Your task to perform on an android device: Search for runner rugs on Crate & Barrel Image 0: 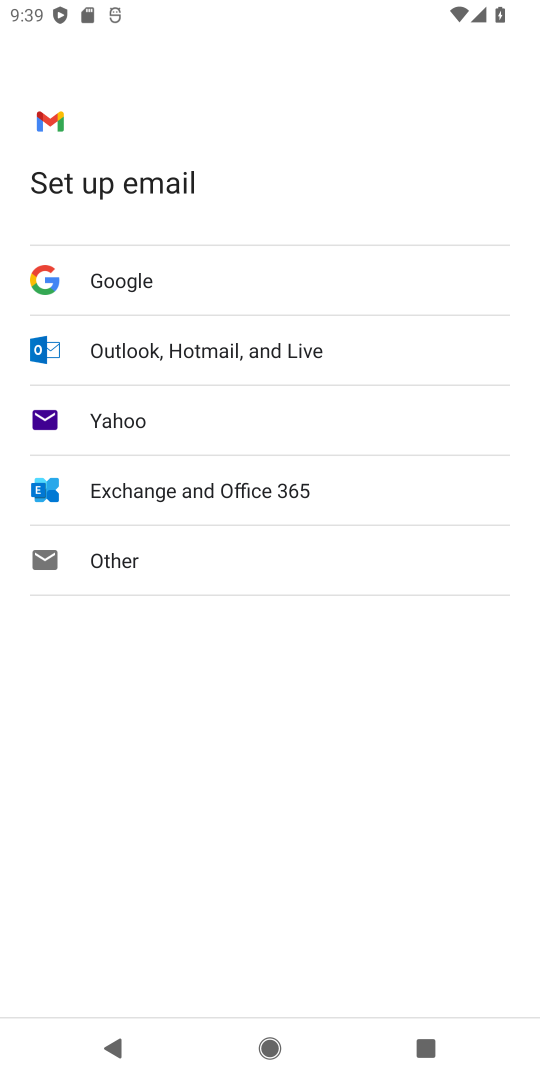
Step 0: press home button
Your task to perform on an android device: Search for runner rugs on Crate & Barrel Image 1: 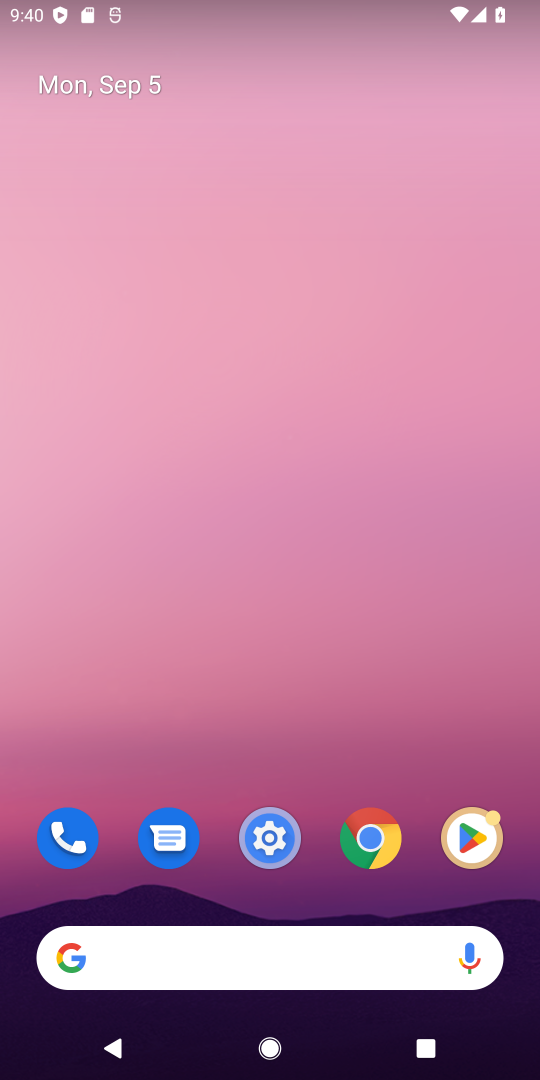
Step 1: click (257, 942)
Your task to perform on an android device: Search for runner rugs on Crate & Barrel Image 2: 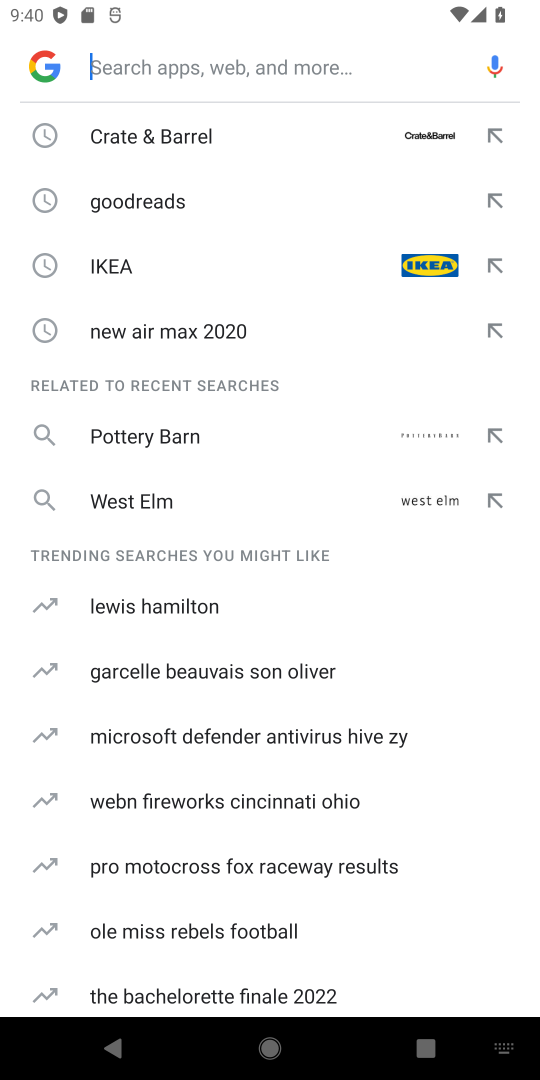
Step 2: click (220, 139)
Your task to perform on an android device: Search for runner rugs on Crate & Barrel Image 3: 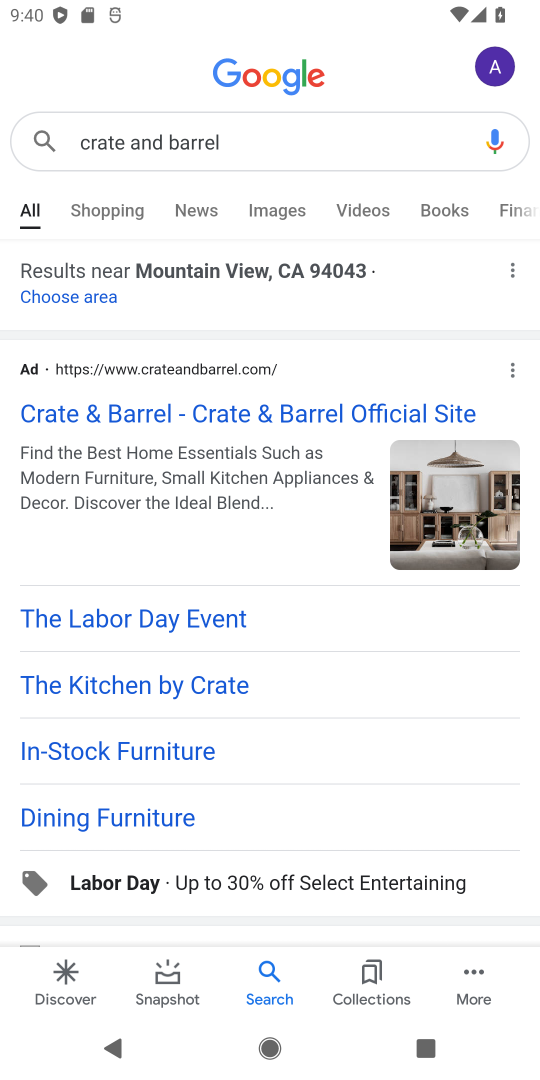
Step 3: drag from (247, 737) to (258, 257)
Your task to perform on an android device: Search for runner rugs on Crate & Barrel Image 4: 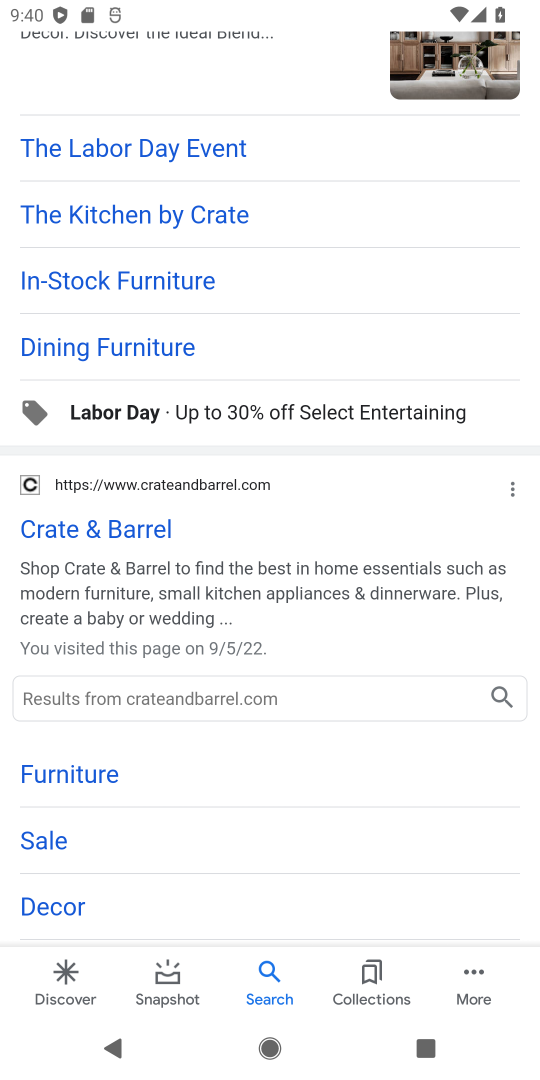
Step 4: click (154, 529)
Your task to perform on an android device: Search for runner rugs on Crate & Barrel Image 5: 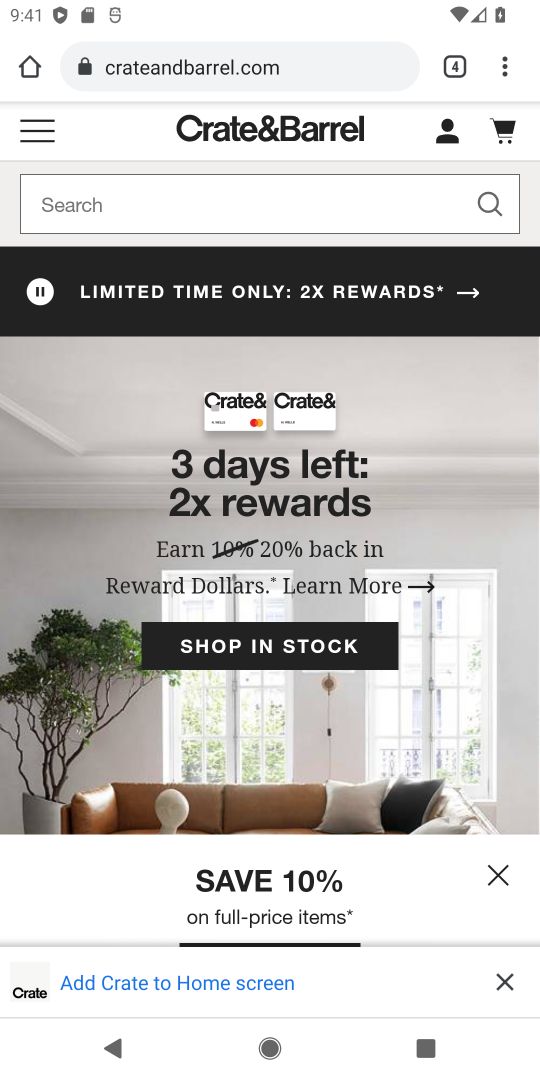
Step 5: type "runner rugs"
Your task to perform on an android device: Search for runner rugs on Crate & Barrel Image 6: 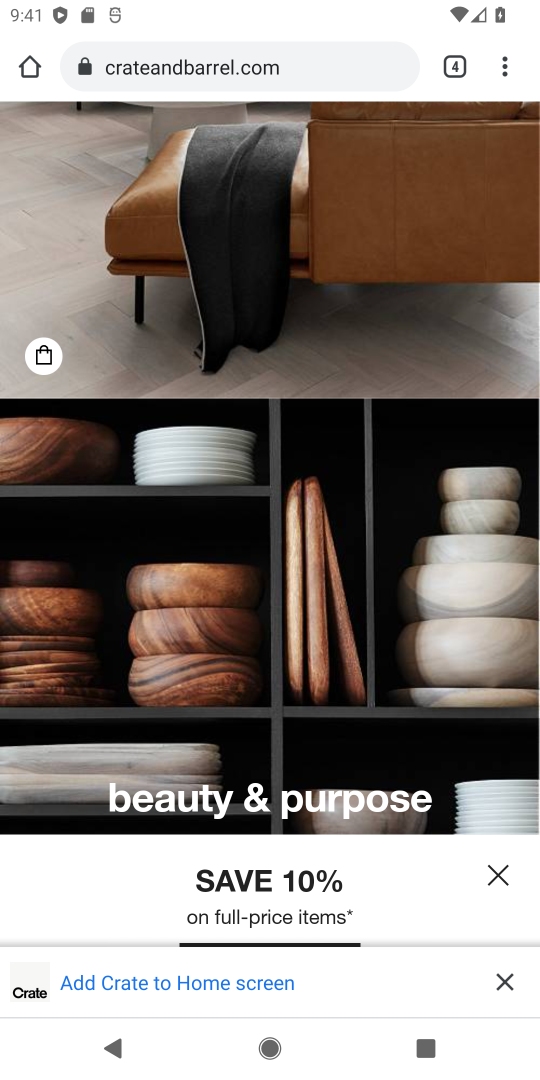
Step 6: task complete